Your task to perform on an android device: Open Wikipedia Image 0: 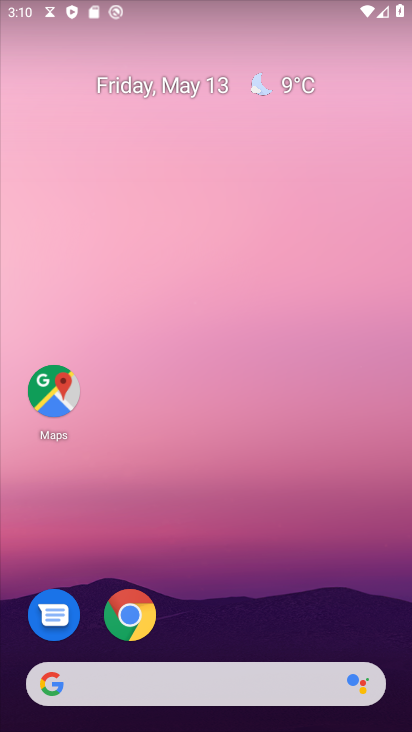
Step 0: click (131, 608)
Your task to perform on an android device: Open Wikipedia Image 1: 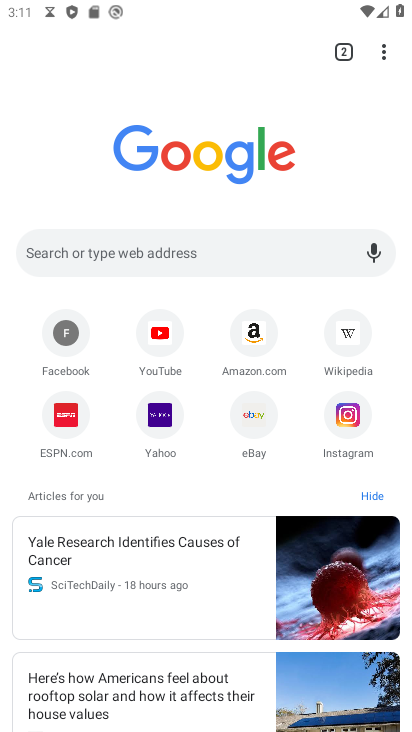
Step 1: click (348, 333)
Your task to perform on an android device: Open Wikipedia Image 2: 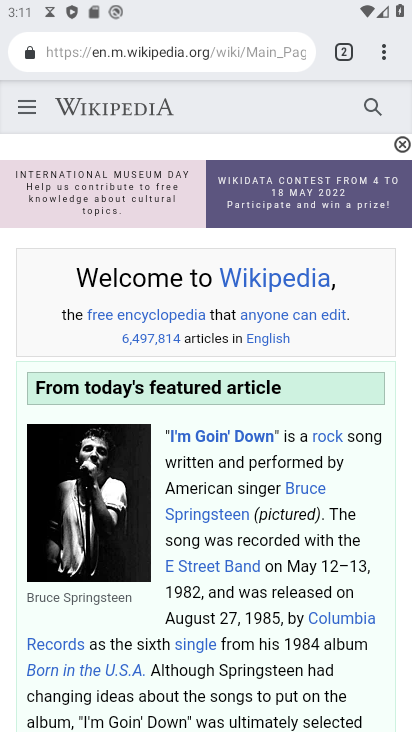
Step 2: task complete